Your task to perform on an android device: set the stopwatch Image 0: 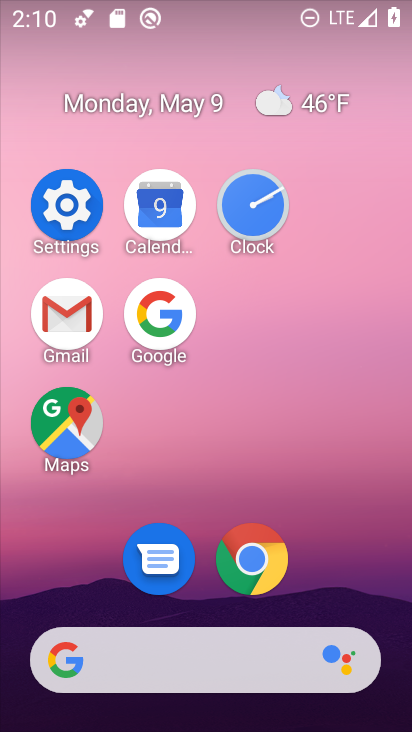
Step 0: click (253, 217)
Your task to perform on an android device: set the stopwatch Image 1: 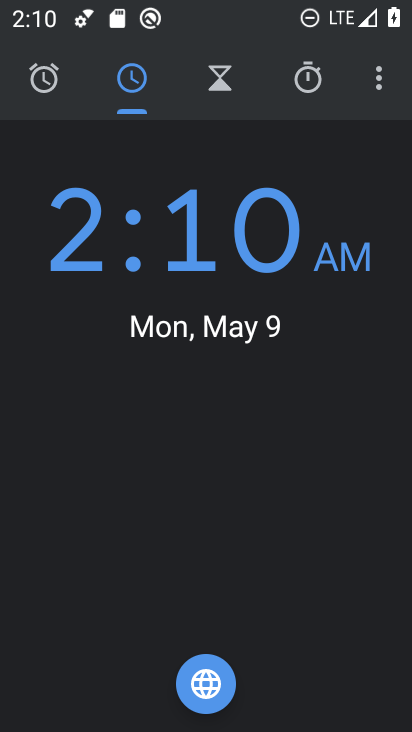
Step 1: click (299, 79)
Your task to perform on an android device: set the stopwatch Image 2: 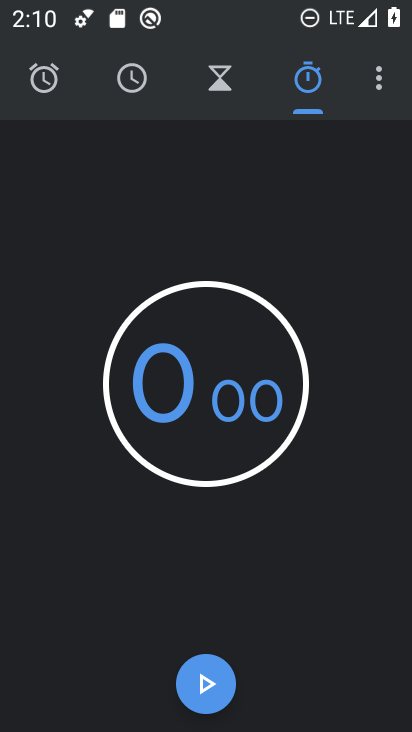
Step 2: click (208, 663)
Your task to perform on an android device: set the stopwatch Image 3: 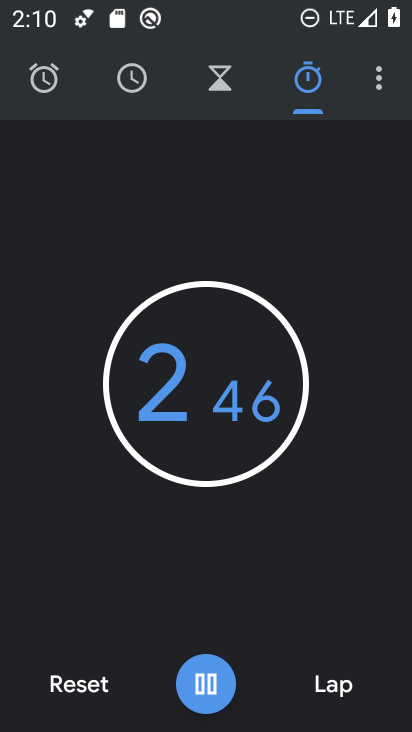
Step 3: task complete